Your task to perform on an android device: add a contact Image 0: 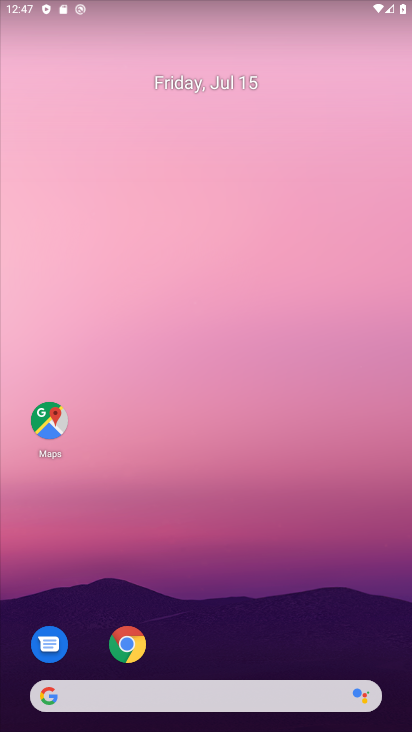
Step 0: drag from (391, 640) to (323, 114)
Your task to perform on an android device: add a contact Image 1: 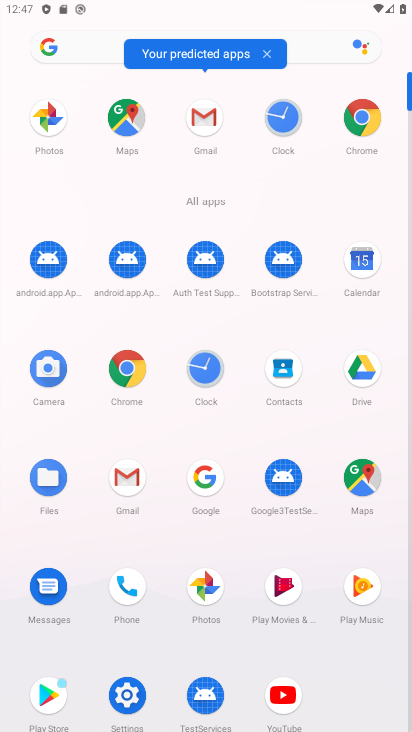
Step 1: click (284, 367)
Your task to perform on an android device: add a contact Image 2: 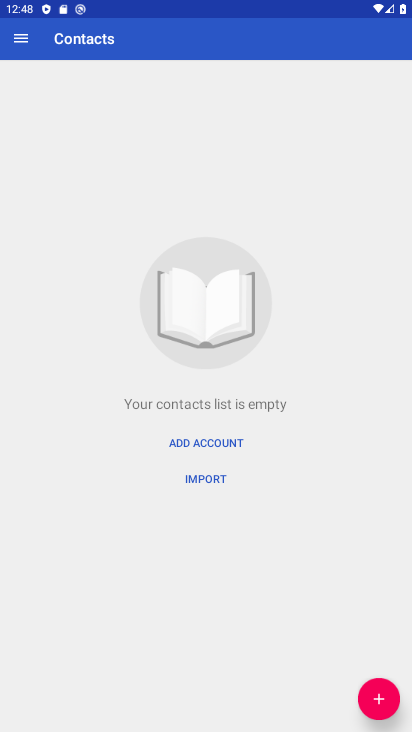
Step 2: click (380, 693)
Your task to perform on an android device: add a contact Image 3: 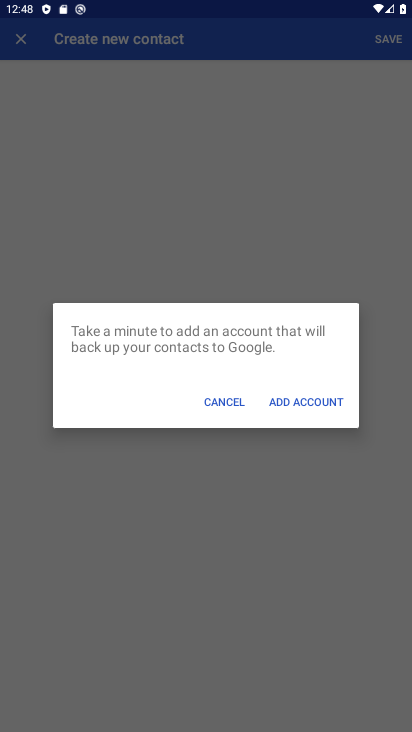
Step 3: click (221, 397)
Your task to perform on an android device: add a contact Image 4: 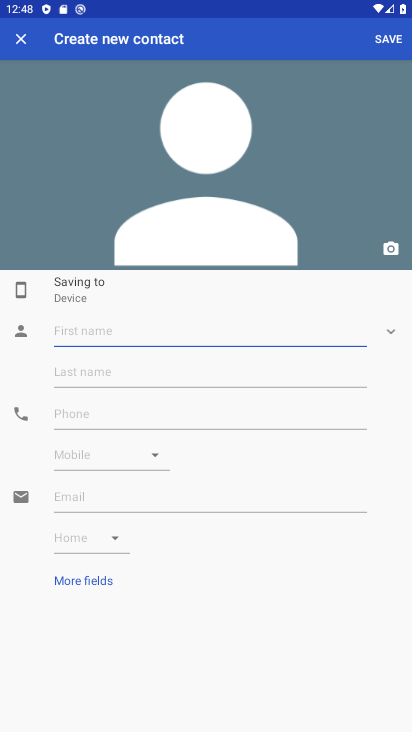
Step 4: type "kfgh"
Your task to perform on an android device: add a contact Image 5: 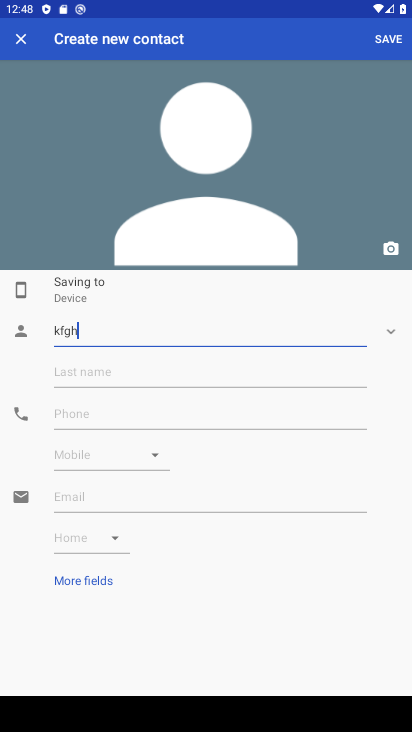
Step 5: click (56, 421)
Your task to perform on an android device: add a contact Image 6: 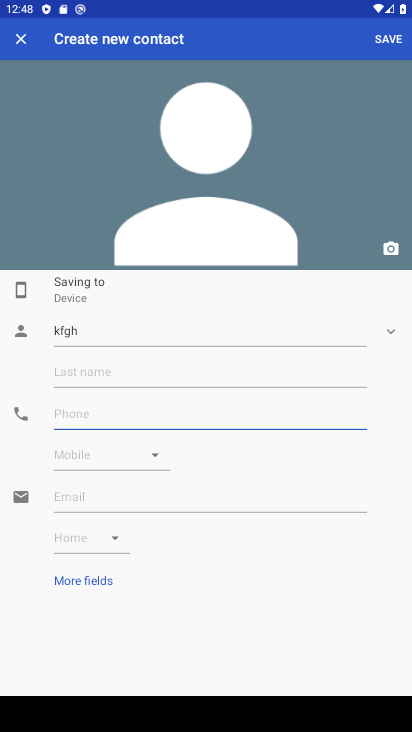
Step 6: type "9765679"
Your task to perform on an android device: add a contact Image 7: 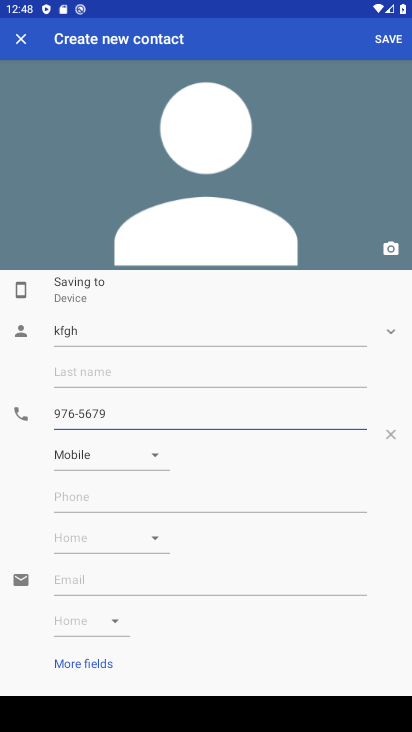
Step 7: click (394, 40)
Your task to perform on an android device: add a contact Image 8: 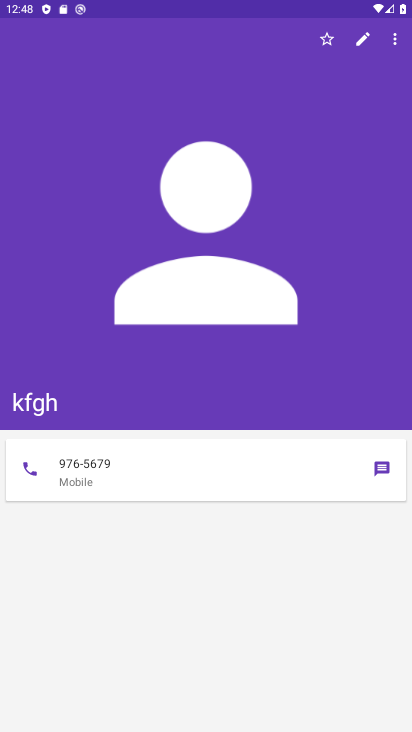
Step 8: task complete